Your task to perform on an android device: check battery use Image 0: 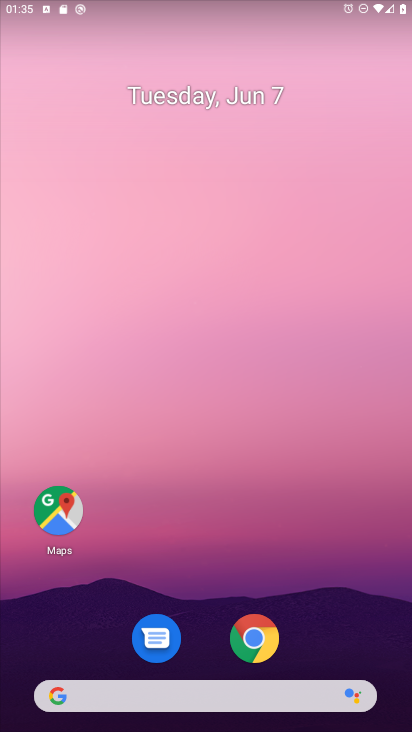
Step 0: drag from (307, 705) to (388, 151)
Your task to perform on an android device: check battery use Image 1: 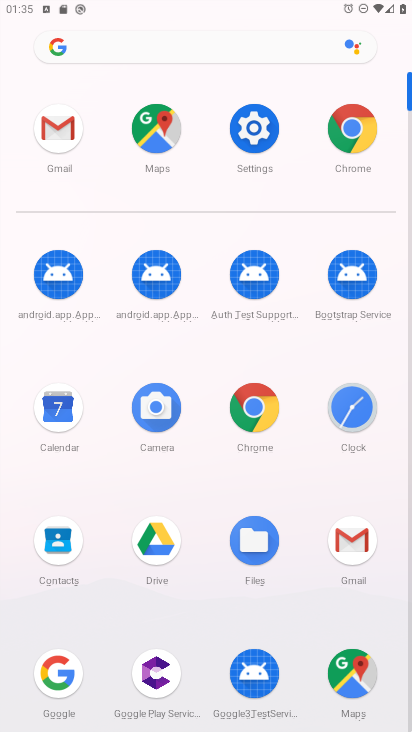
Step 1: click (231, 121)
Your task to perform on an android device: check battery use Image 2: 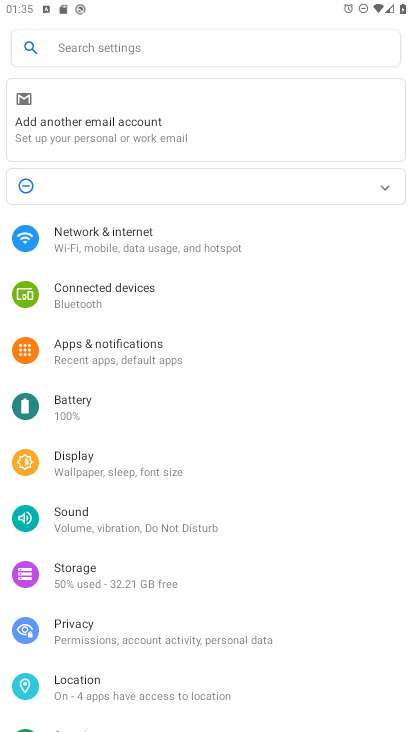
Step 2: click (119, 422)
Your task to perform on an android device: check battery use Image 3: 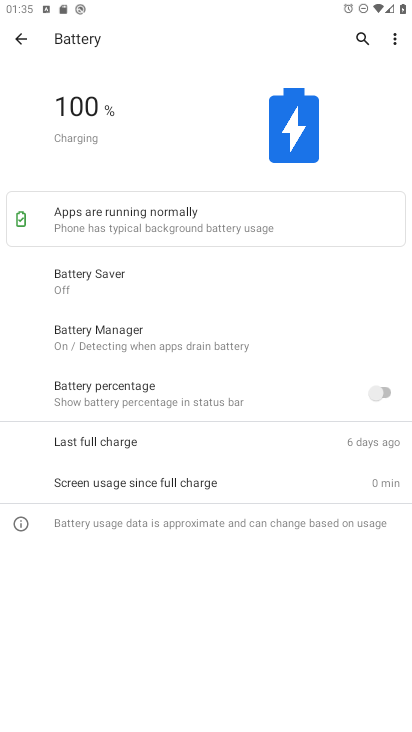
Step 3: click (84, 400)
Your task to perform on an android device: check battery use Image 4: 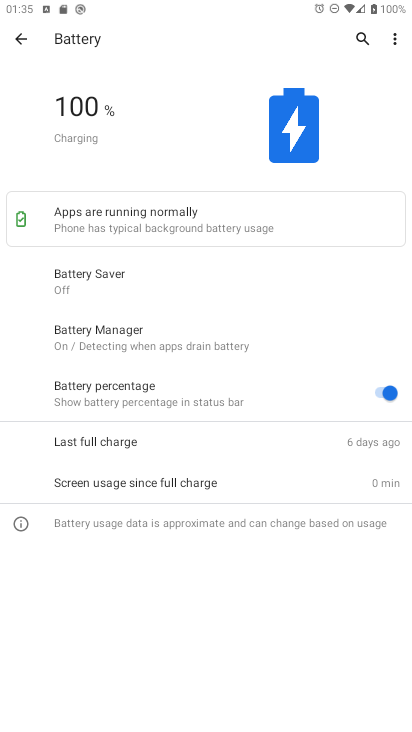
Step 4: task complete